Your task to perform on an android device: Go to network settings Image 0: 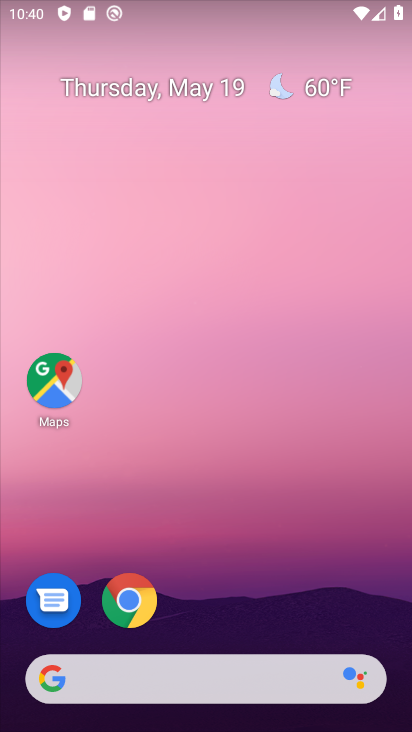
Step 0: drag from (365, 591) to (356, 247)
Your task to perform on an android device: Go to network settings Image 1: 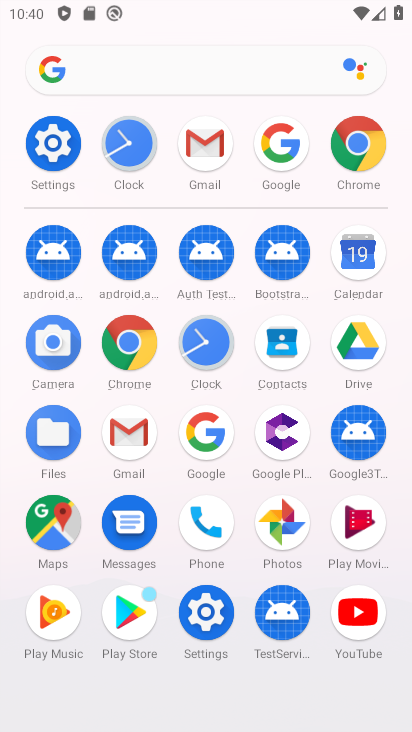
Step 1: click (65, 164)
Your task to perform on an android device: Go to network settings Image 2: 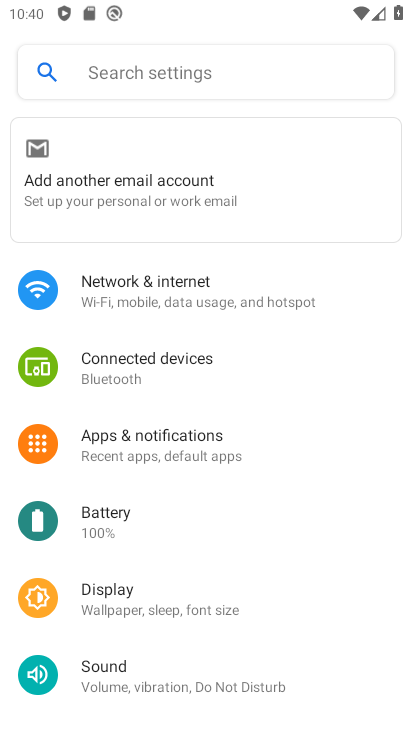
Step 2: drag from (343, 555) to (347, 457)
Your task to perform on an android device: Go to network settings Image 3: 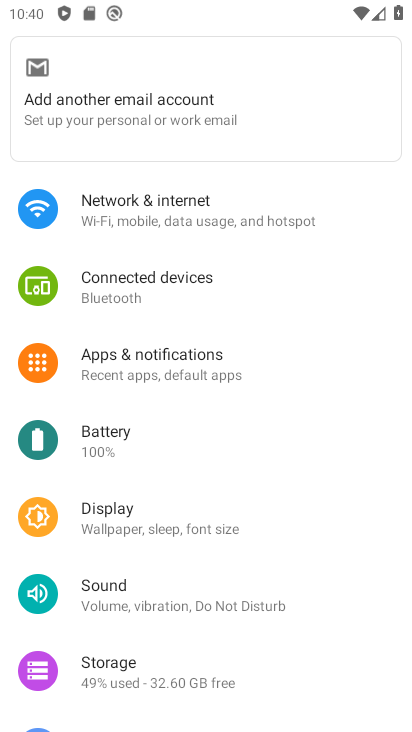
Step 3: drag from (346, 617) to (346, 506)
Your task to perform on an android device: Go to network settings Image 4: 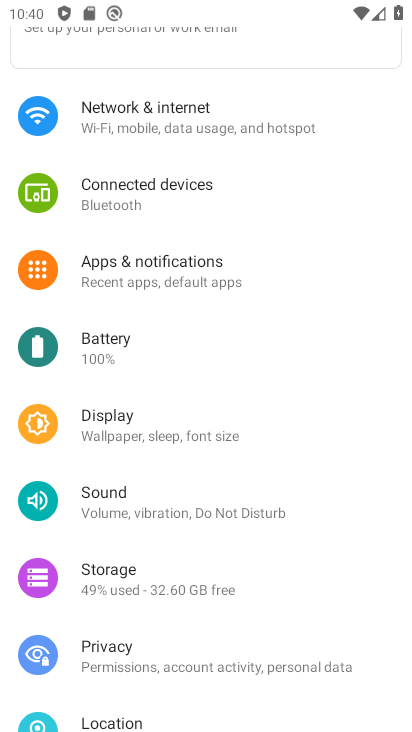
Step 4: drag from (334, 634) to (335, 522)
Your task to perform on an android device: Go to network settings Image 5: 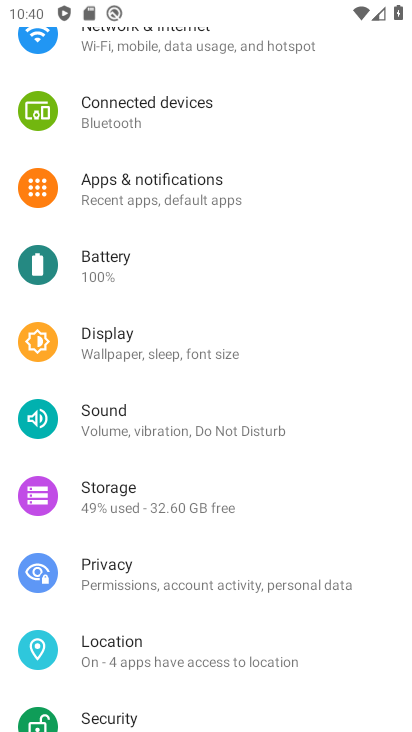
Step 5: drag from (343, 652) to (336, 507)
Your task to perform on an android device: Go to network settings Image 6: 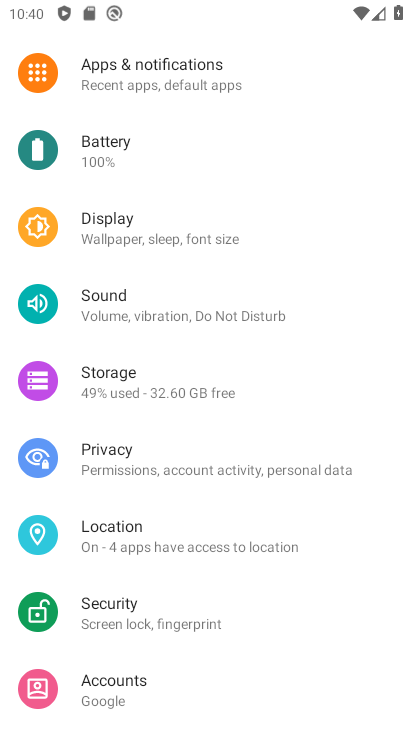
Step 6: drag from (334, 653) to (333, 528)
Your task to perform on an android device: Go to network settings Image 7: 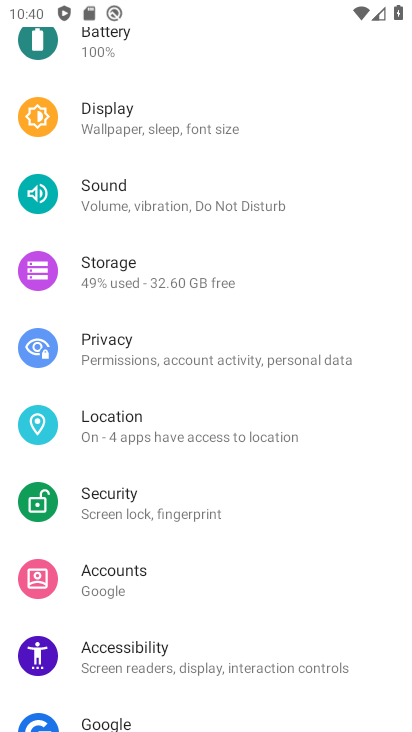
Step 7: drag from (322, 647) to (329, 537)
Your task to perform on an android device: Go to network settings Image 8: 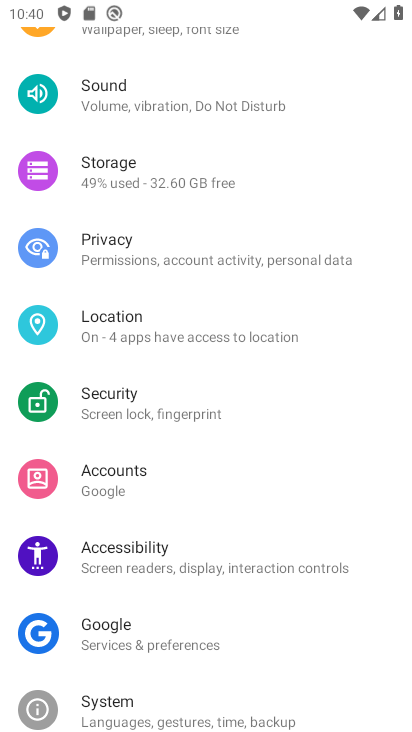
Step 8: drag from (327, 676) to (337, 577)
Your task to perform on an android device: Go to network settings Image 9: 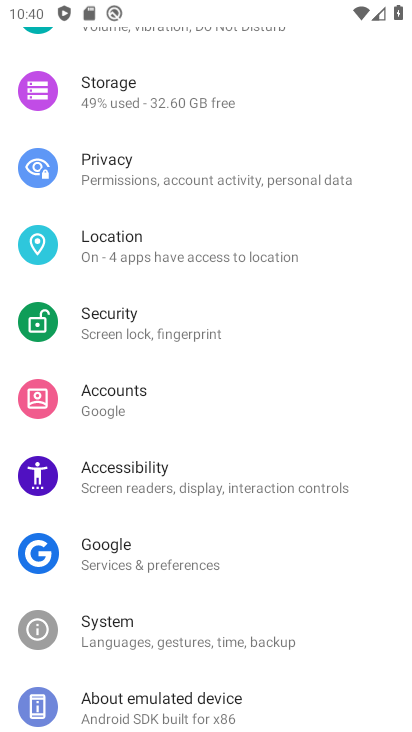
Step 9: drag from (348, 656) to (360, 551)
Your task to perform on an android device: Go to network settings Image 10: 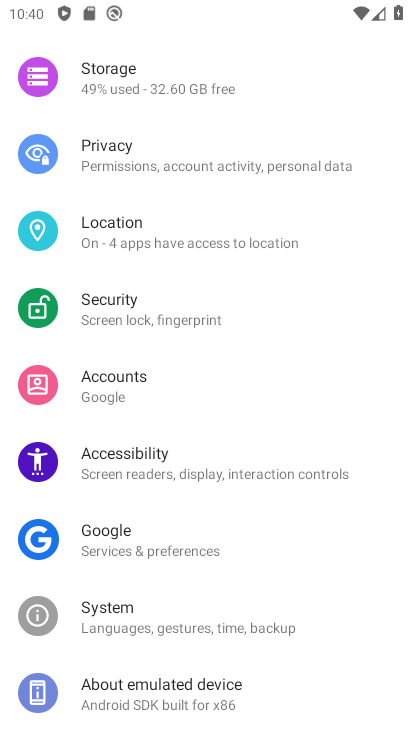
Step 10: drag from (352, 394) to (352, 519)
Your task to perform on an android device: Go to network settings Image 11: 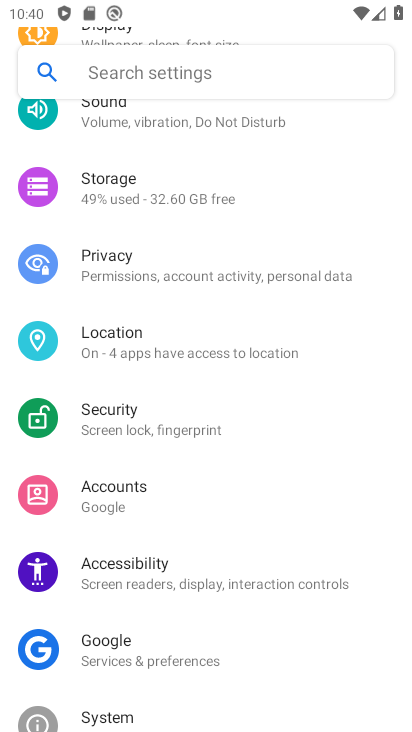
Step 11: drag from (344, 376) to (343, 462)
Your task to perform on an android device: Go to network settings Image 12: 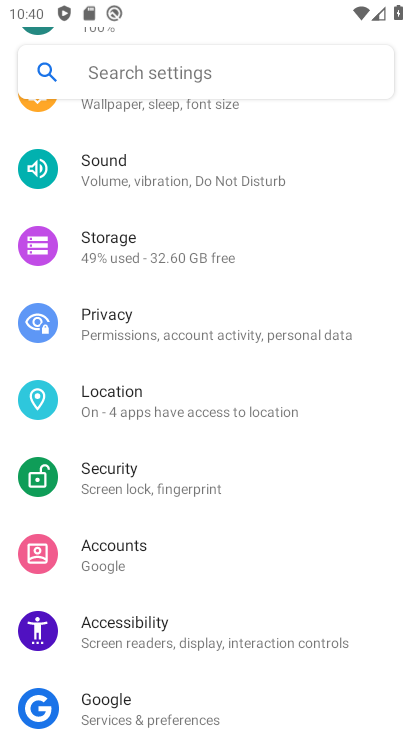
Step 12: drag from (341, 365) to (341, 455)
Your task to perform on an android device: Go to network settings Image 13: 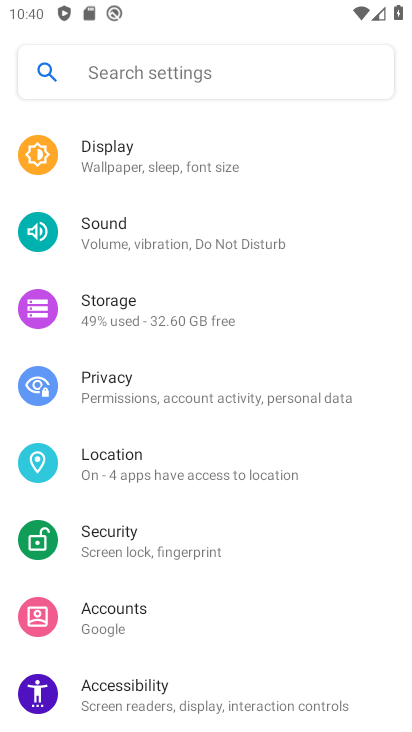
Step 13: drag from (339, 342) to (338, 445)
Your task to perform on an android device: Go to network settings Image 14: 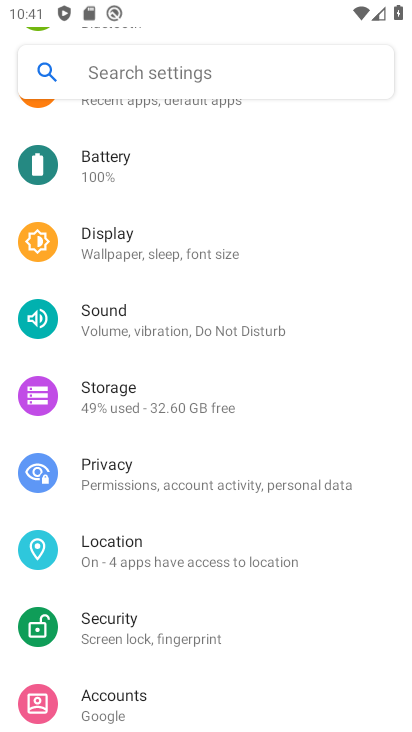
Step 14: drag from (322, 340) to (330, 406)
Your task to perform on an android device: Go to network settings Image 15: 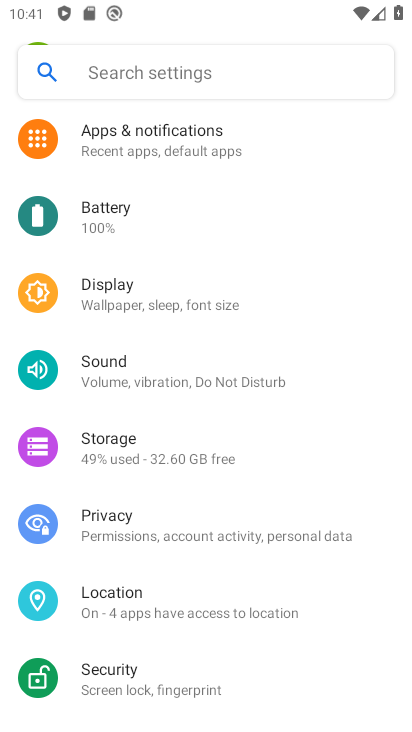
Step 15: click (342, 374)
Your task to perform on an android device: Go to network settings Image 16: 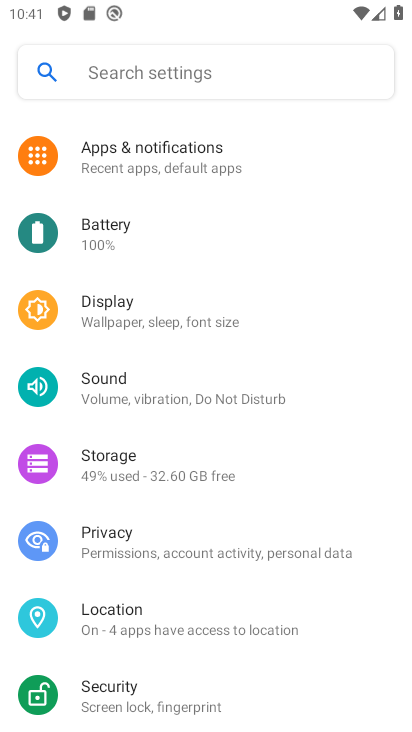
Step 16: drag from (351, 360) to (347, 442)
Your task to perform on an android device: Go to network settings Image 17: 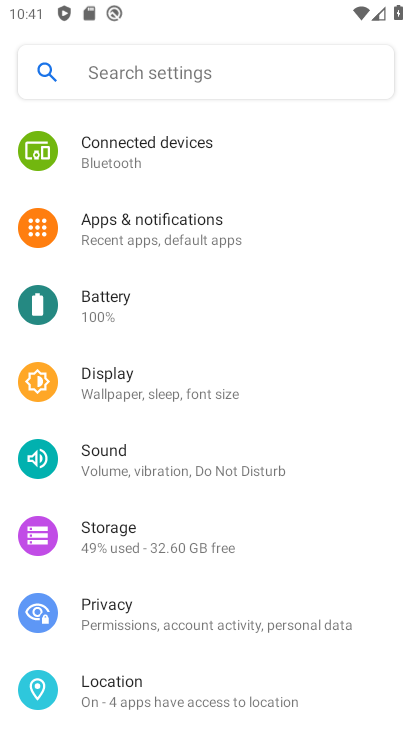
Step 17: drag from (329, 338) to (336, 388)
Your task to perform on an android device: Go to network settings Image 18: 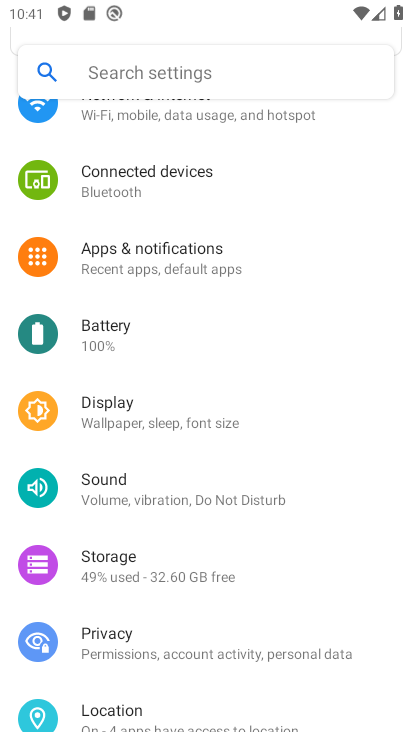
Step 18: drag from (336, 338) to (339, 383)
Your task to perform on an android device: Go to network settings Image 19: 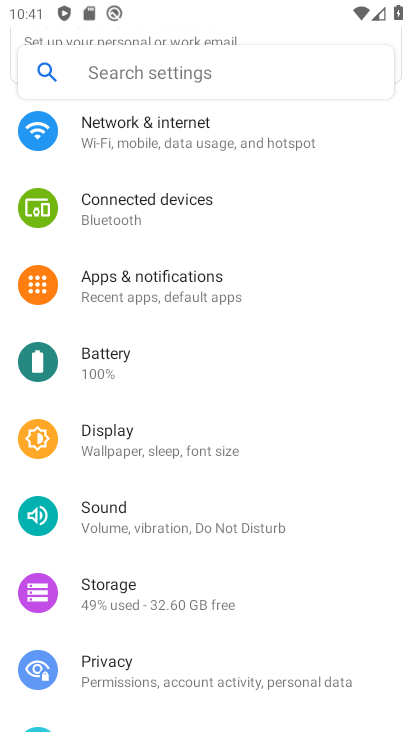
Step 19: click (346, 360)
Your task to perform on an android device: Go to network settings Image 20: 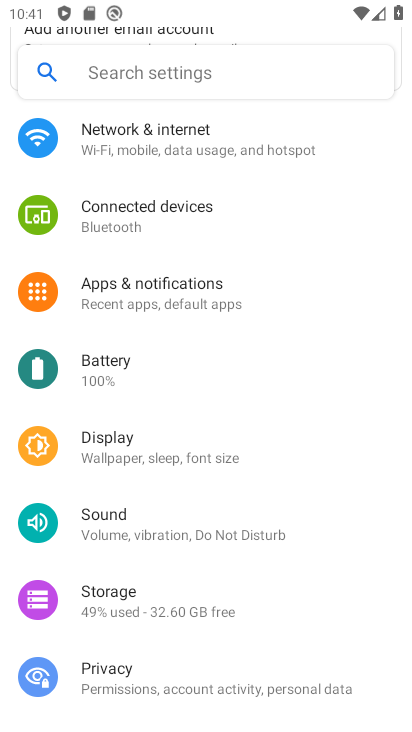
Step 20: drag from (348, 379) to (354, 419)
Your task to perform on an android device: Go to network settings Image 21: 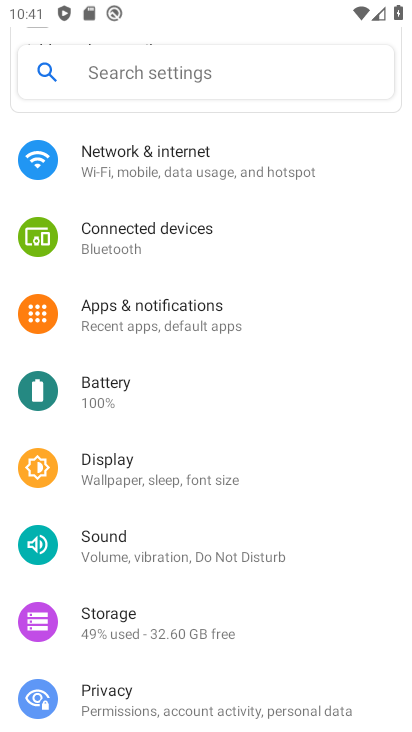
Step 21: click (361, 396)
Your task to perform on an android device: Go to network settings Image 22: 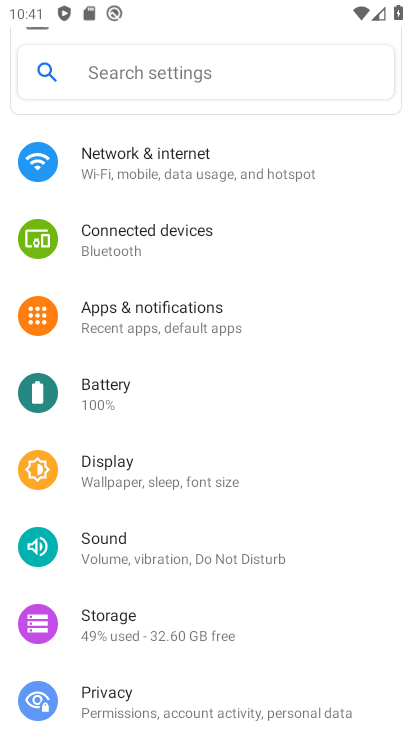
Step 22: drag from (374, 331) to (380, 415)
Your task to perform on an android device: Go to network settings Image 23: 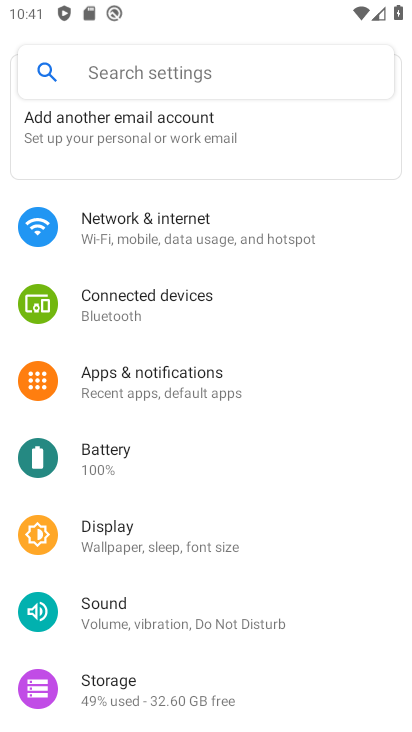
Step 23: drag from (345, 338) to (357, 410)
Your task to perform on an android device: Go to network settings Image 24: 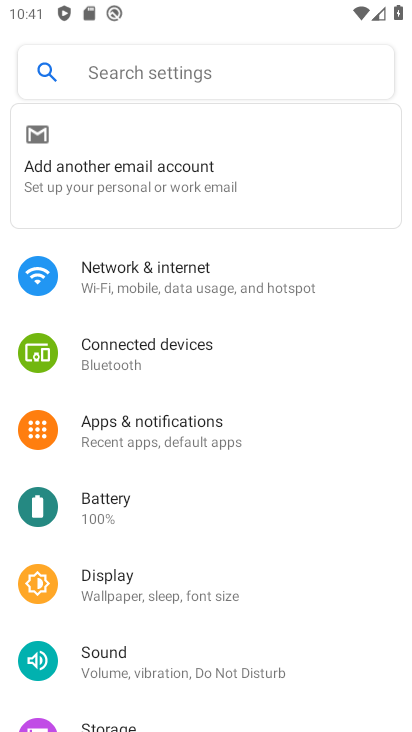
Step 24: click (169, 278)
Your task to perform on an android device: Go to network settings Image 25: 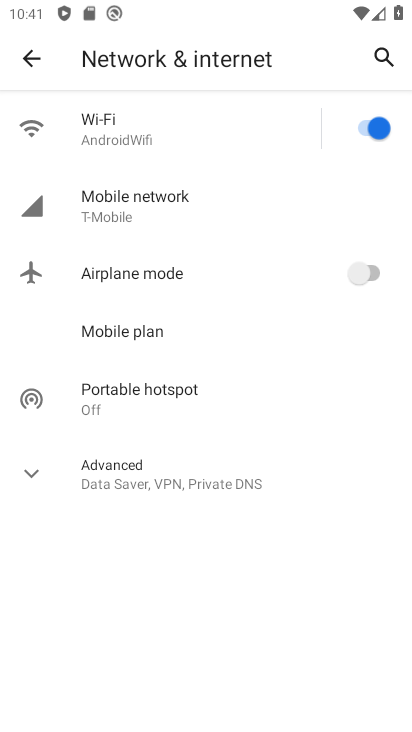
Step 25: click (249, 485)
Your task to perform on an android device: Go to network settings Image 26: 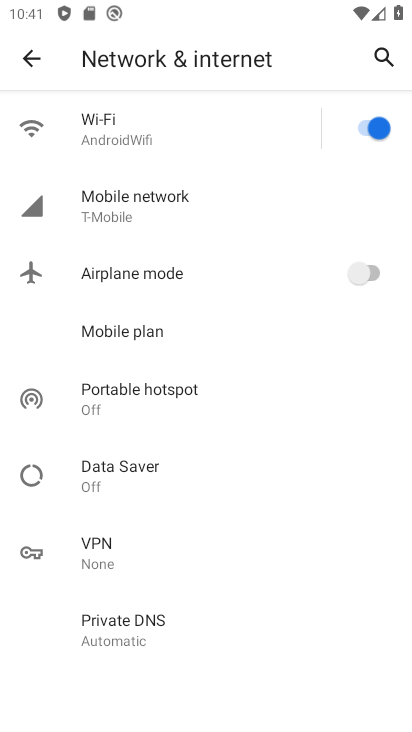
Step 26: task complete